Your task to perform on an android device: Open Chrome and go to settings Image 0: 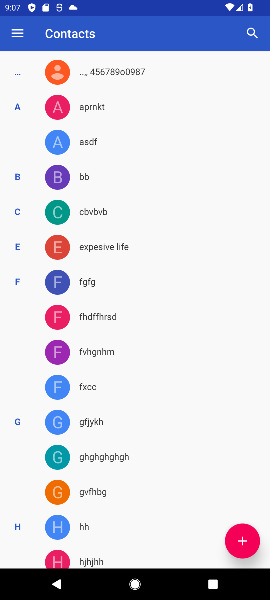
Step 0: drag from (131, 418) to (154, 232)
Your task to perform on an android device: Open Chrome and go to settings Image 1: 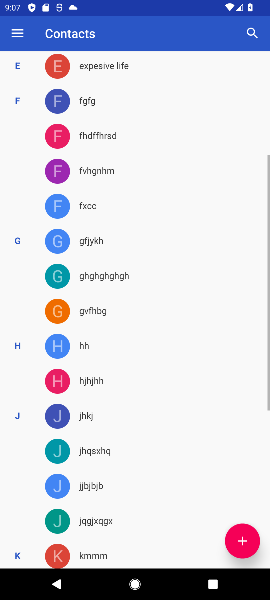
Step 1: press home button
Your task to perform on an android device: Open Chrome and go to settings Image 2: 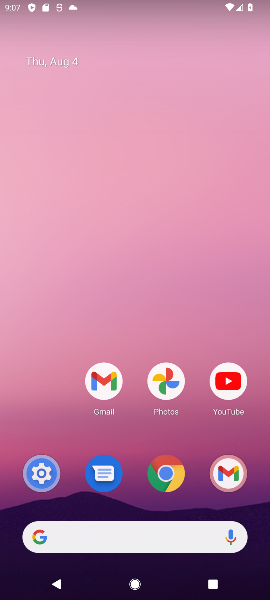
Step 2: drag from (166, 550) to (213, 98)
Your task to perform on an android device: Open Chrome and go to settings Image 3: 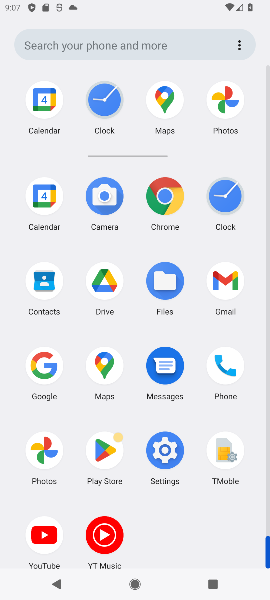
Step 3: click (161, 196)
Your task to perform on an android device: Open Chrome and go to settings Image 4: 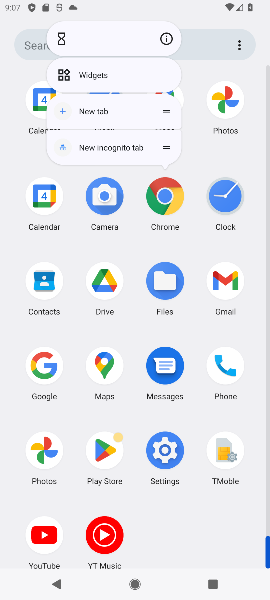
Step 4: click (168, 38)
Your task to perform on an android device: Open Chrome and go to settings Image 5: 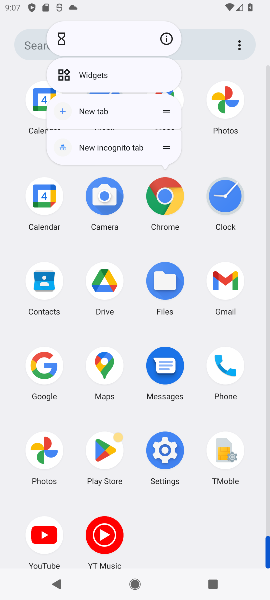
Step 5: click (164, 38)
Your task to perform on an android device: Open Chrome and go to settings Image 6: 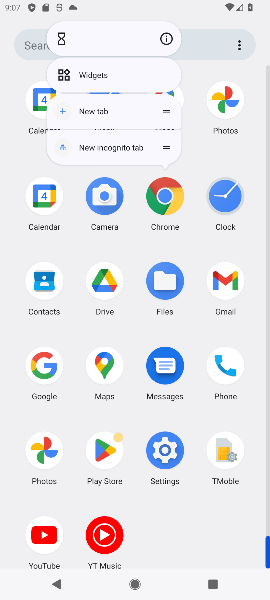
Step 6: click (165, 38)
Your task to perform on an android device: Open Chrome and go to settings Image 7: 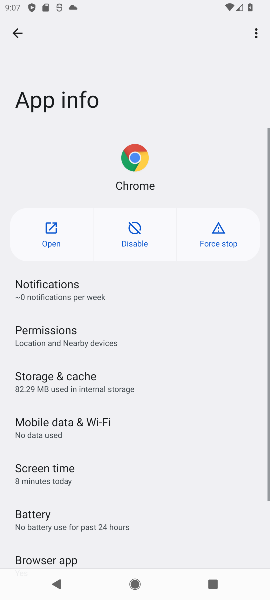
Step 7: click (69, 226)
Your task to perform on an android device: Open Chrome and go to settings Image 8: 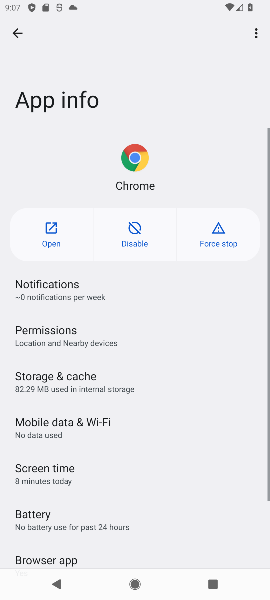
Step 8: click (63, 222)
Your task to perform on an android device: Open Chrome and go to settings Image 9: 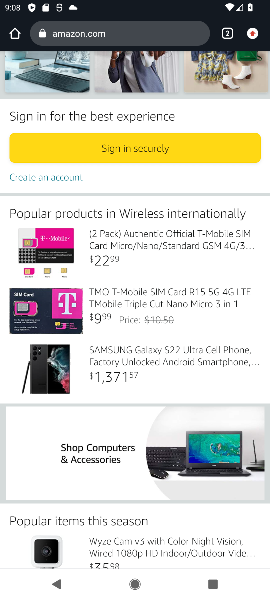
Step 9: task complete